Your task to perform on an android device: Add logitech g933 to the cart on target, then select checkout. Image 0: 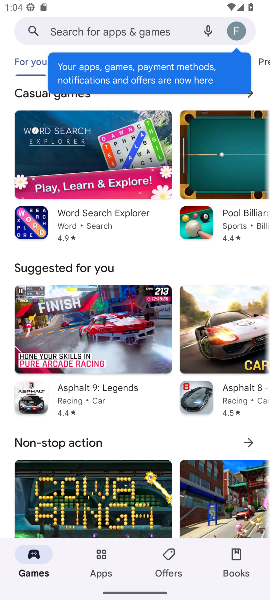
Step 0: press home button
Your task to perform on an android device: Add logitech g933 to the cart on target, then select checkout. Image 1: 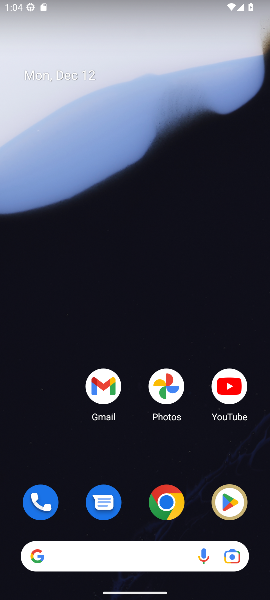
Step 1: click (169, 500)
Your task to perform on an android device: Add logitech g933 to the cart on target, then select checkout. Image 2: 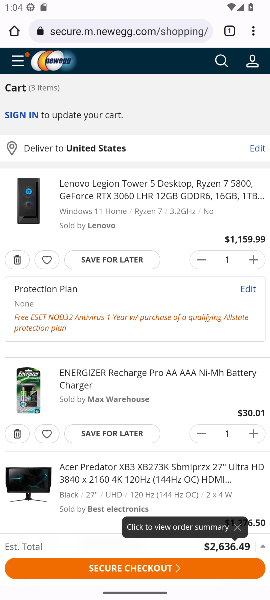
Step 2: click (220, 66)
Your task to perform on an android device: Add logitech g933 to the cart on target, then select checkout. Image 3: 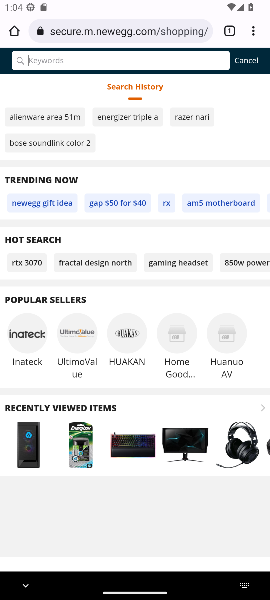
Step 3: click (184, 30)
Your task to perform on an android device: Add logitech g933 to the cart on target, then select checkout. Image 4: 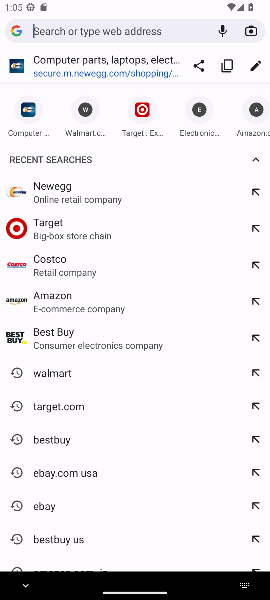
Step 4: click (66, 235)
Your task to perform on an android device: Add logitech g933 to the cart on target, then select checkout. Image 5: 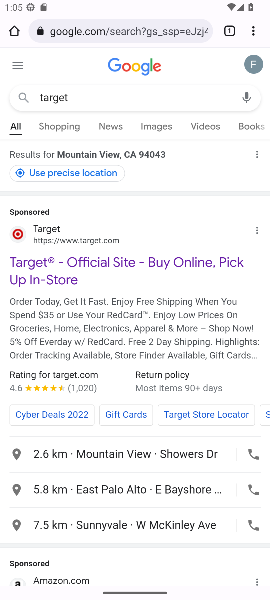
Step 5: click (76, 266)
Your task to perform on an android device: Add logitech g933 to the cart on target, then select checkout. Image 6: 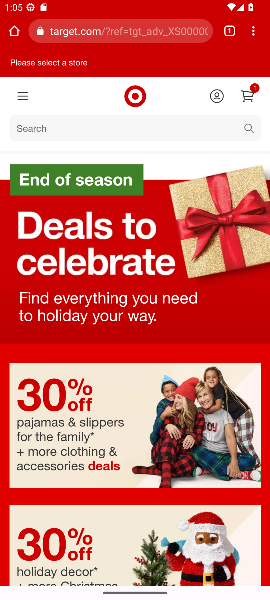
Step 6: click (89, 123)
Your task to perform on an android device: Add logitech g933 to the cart on target, then select checkout. Image 7: 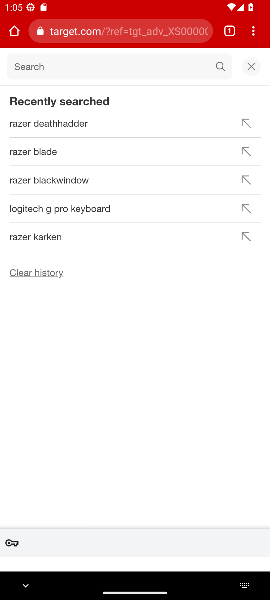
Step 7: type "logitech g933"
Your task to perform on an android device: Add logitech g933 to the cart on target, then select checkout. Image 8: 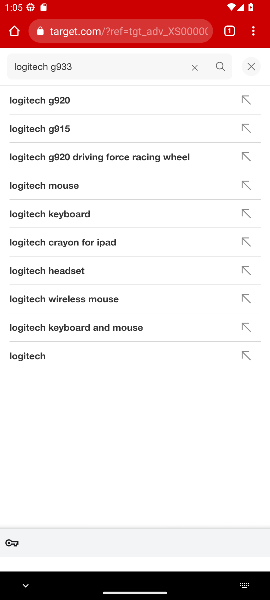
Step 8: click (216, 66)
Your task to perform on an android device: Add logitech g933 to the cart on target, then select checkout. Image 9: 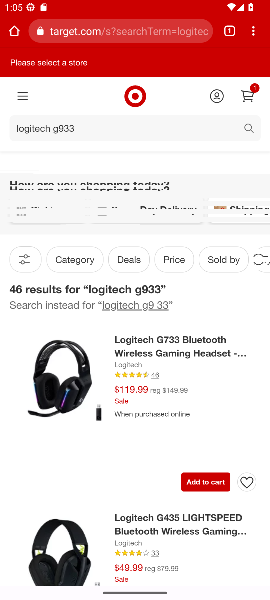
Step 9: click (187, 486)
Your task to perform on an android device: Add logitech g933 to the cart on target, then select checkout. Image 10: 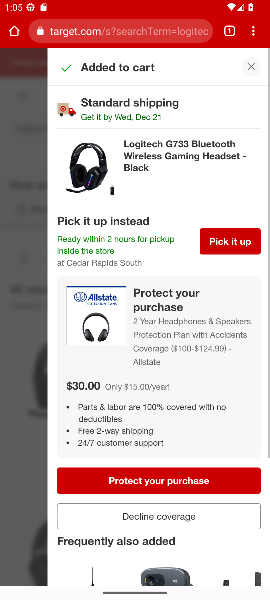
Step 10: task complete